Your task to perform on an android device: change notifications settings Image 0: 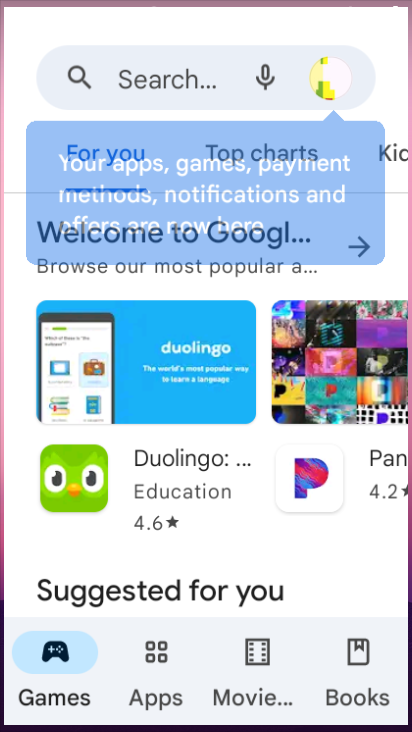
Step 0: drag from (379, 648) to (197, 305)
Your task to perform on an android device: change notifications settings Image 1: 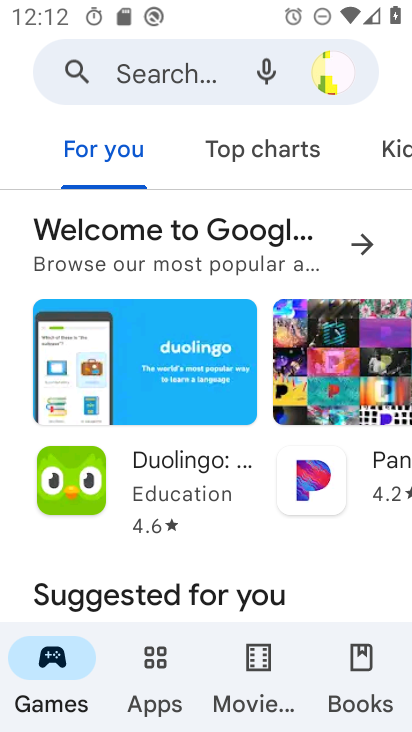
Step 1: press back button
Your task to perform on an android device: change notifications settings Image 2: 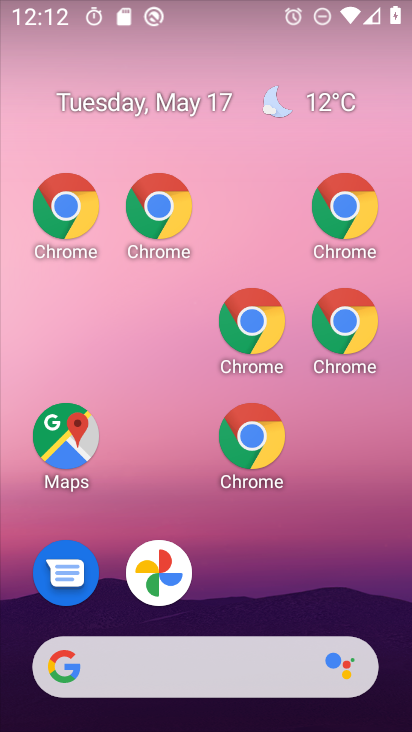
Step 2: drag from (349, 665) to (227, 34)
Your task to perform on an android device: change notifications settings Image 3: 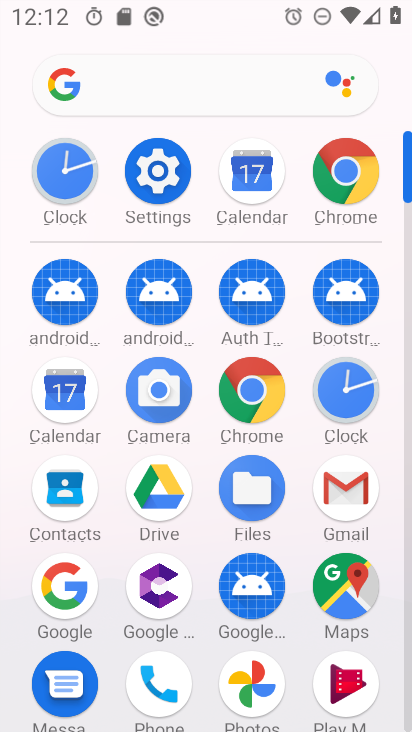
Step 3: click (156, 171)
Your task to perform on an android device: change notifications settings Image 4: 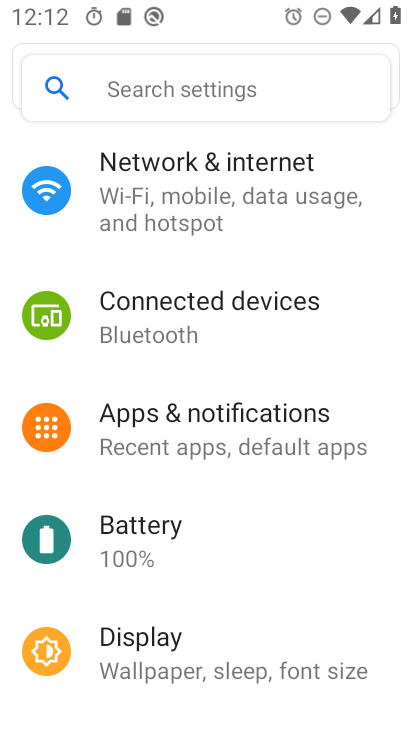
Step 4: click (186, 441)
Your task to perform on an android device: change notifications settings Image 5: 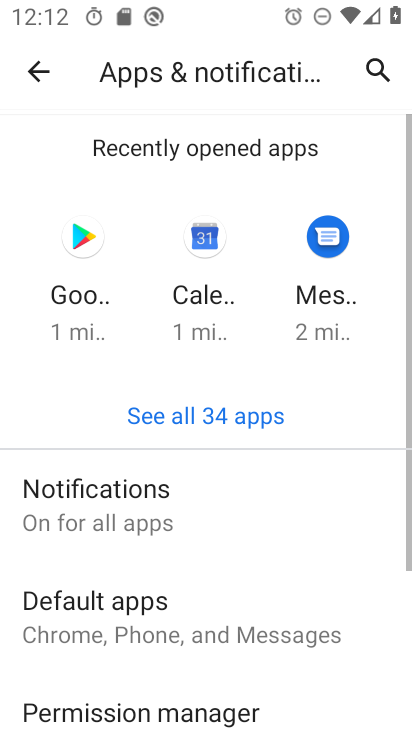
Step 5: drag from (140, 641) to (149, 221)
Your task to perform on an android device: change notifications settings Image 6: 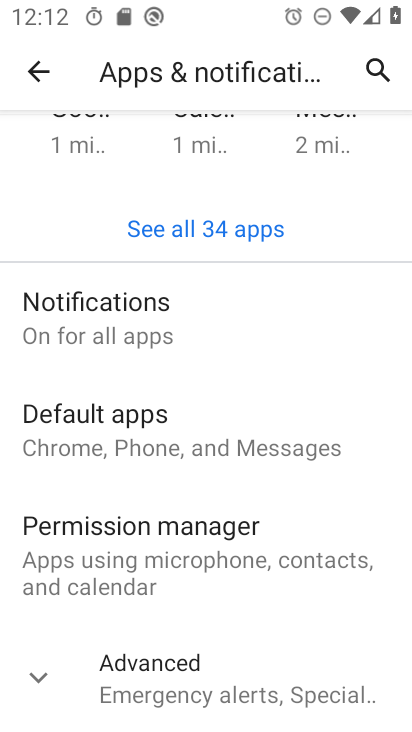
Step 6: click (96, 327)
Your task to perform on an android device: change notifications settings Image 7: 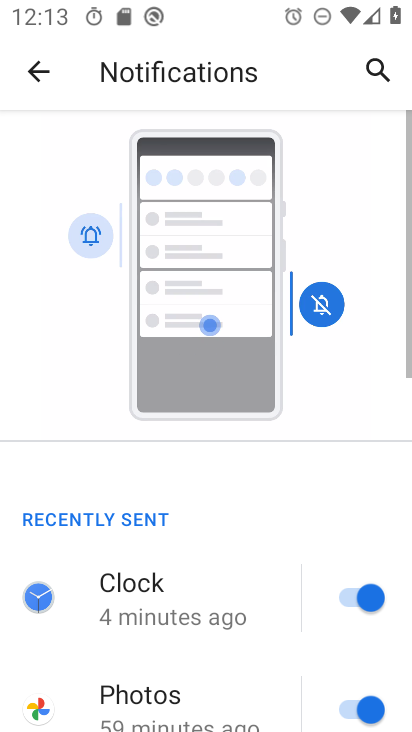
Step 7: drag from (184, 612) to (185, 205)
Your task to perform on an android device: change notifications settings Image 8: 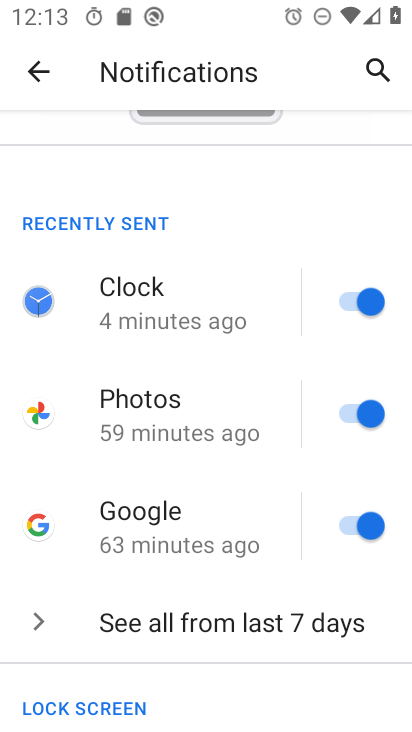
Step 8: drag from (167, 569) to (145, 84)
Your task to perform on an android device: change notifications settings Image 9: 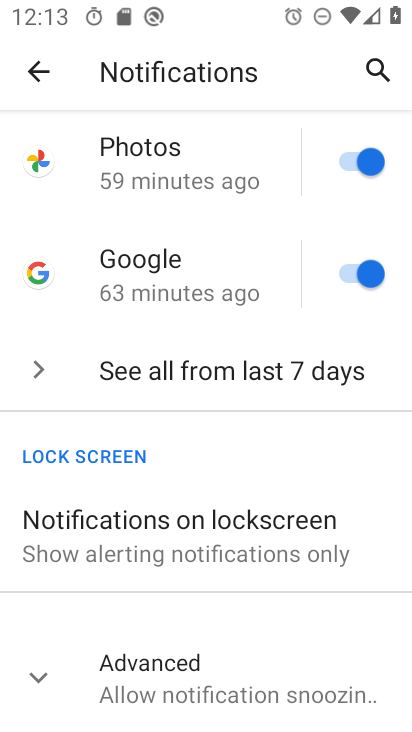
Step 9: click (165, 661)
Your task to perform on an android device: change notifications settings Image 10: 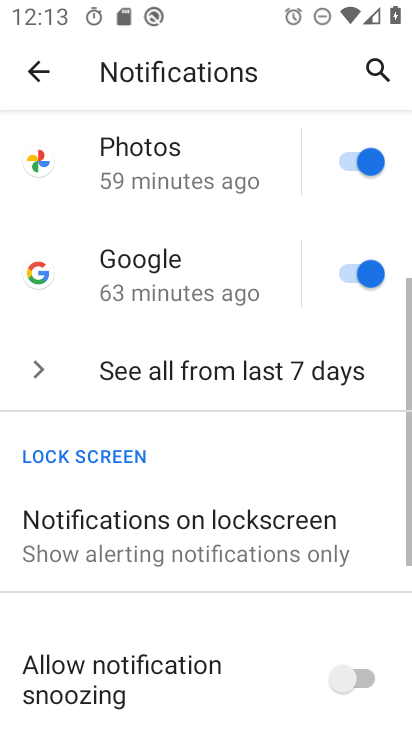
Step 10: drag from (167, 661) to (219, 383)
Your task to perform on an android device: change notifications settings Image 11: 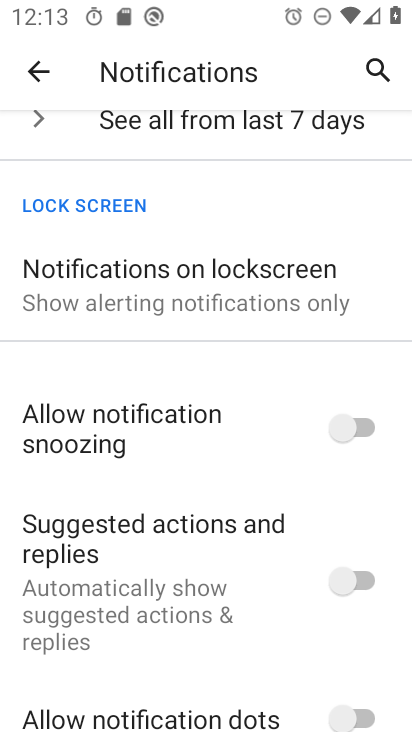
Step 11: click (339, 432)
Your task to perform on an android device: change notifications settings Image 12: 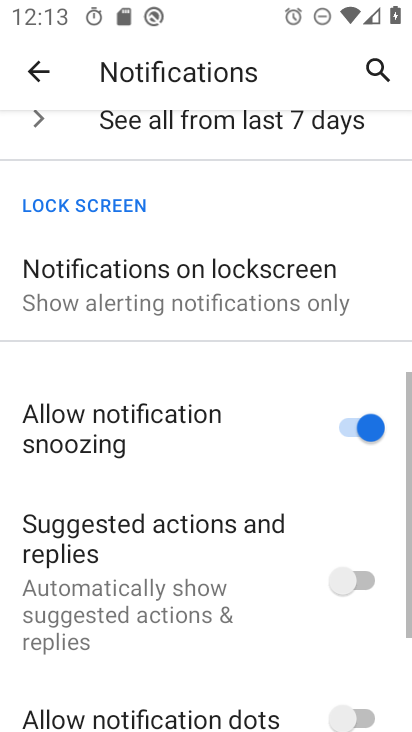
Step 12: drag from (279, 561) to (351, 163)
Your task to perform on an android device: change notifications settings Image 13: 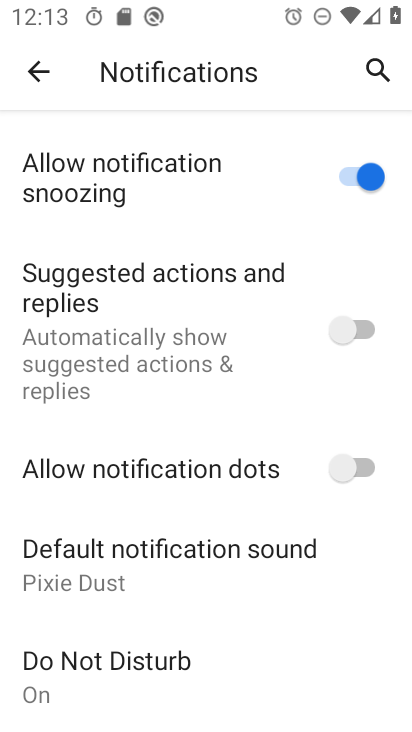
Step 13: click (357, 464)
Your task to perform on an android device: change notifications settings Image 14: 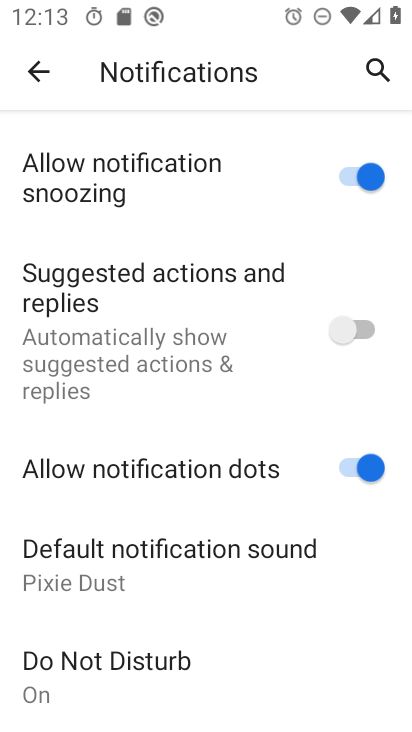
Step 14: click (142, 553)
Your task to perform on an android device: change notifications settings Image 15: 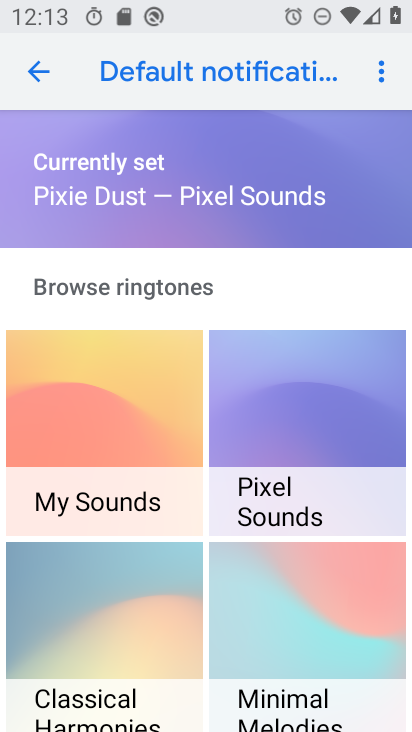
Step 15: click (18, 73)
Your task to perform on an android device: change notifications settings Image 16: 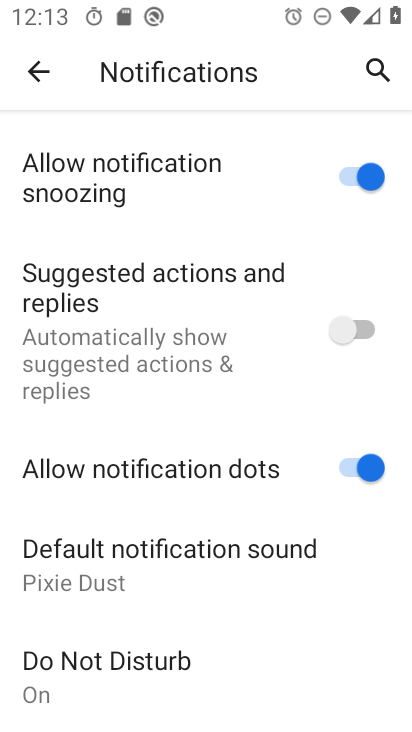
Step 16: task complete